Your task to perform on an android device: turn on bluetooth scan Image 0: 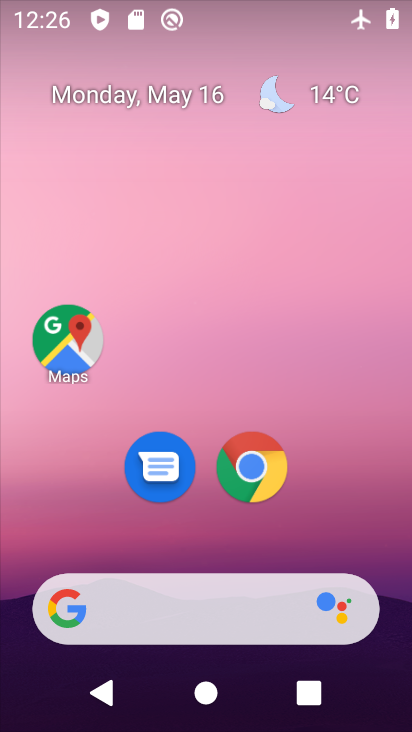
Step 0: drag from (205, 483) to (310, 228)
Your task to perform on an android device: turn on bluetooth scan Image 1: 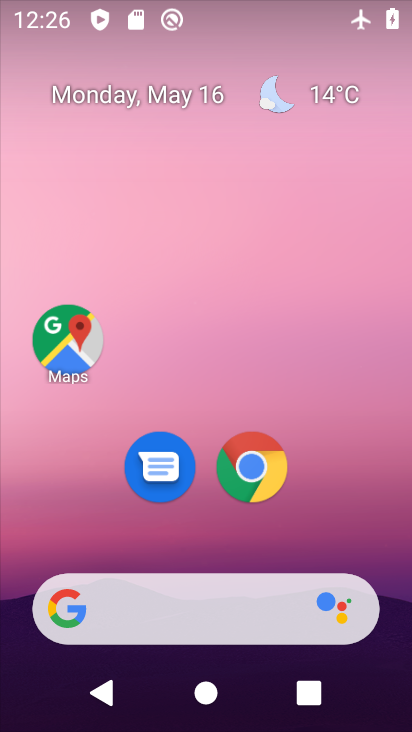
Step 1: drag from (242, 518) to (377, 181)
Your task to perform on an android device: turn on bluetooth scan Image 2: 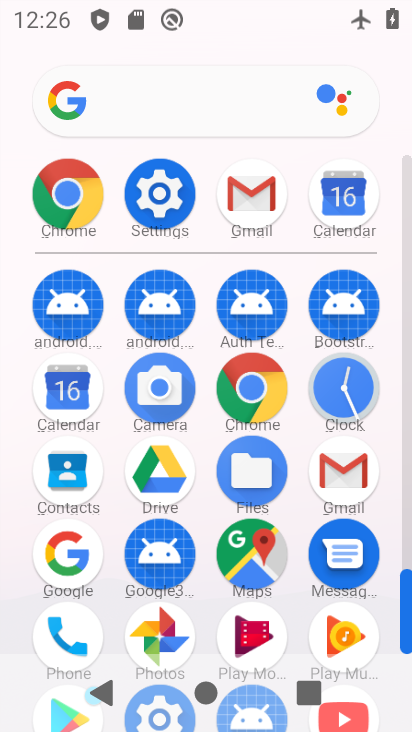
Step 2: click (152, 178)
Your task to perform on an android device: turn on bluetooth scan Image 3: 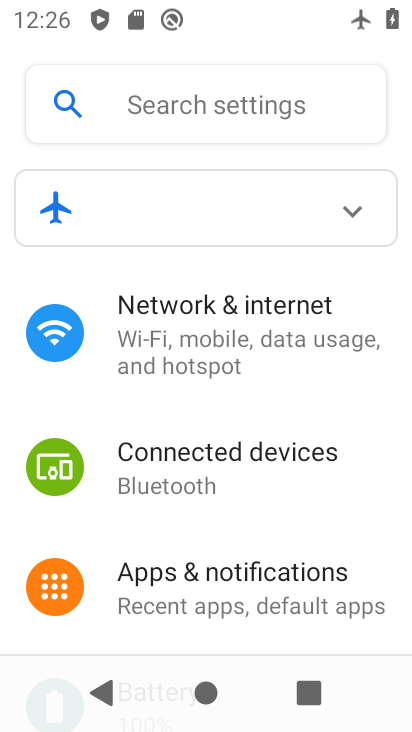
Step 3: drag from (115, 179) to (151, 134)
Your task to perform on an android device: turn on bluetooth scan Image 4: 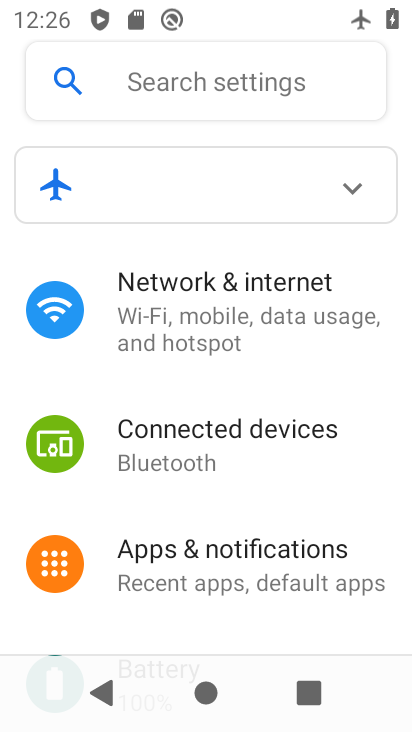
Step 4: click (160, 64)
Your task to perform on an android device: turn on bluetooth scan Image 5: 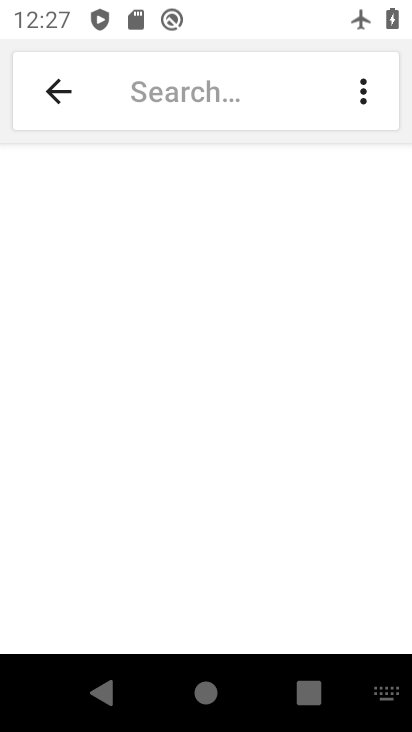
Step 5: click (236, 76)
Your task to perform on an android device: turn on bluetooth scan Image 6: 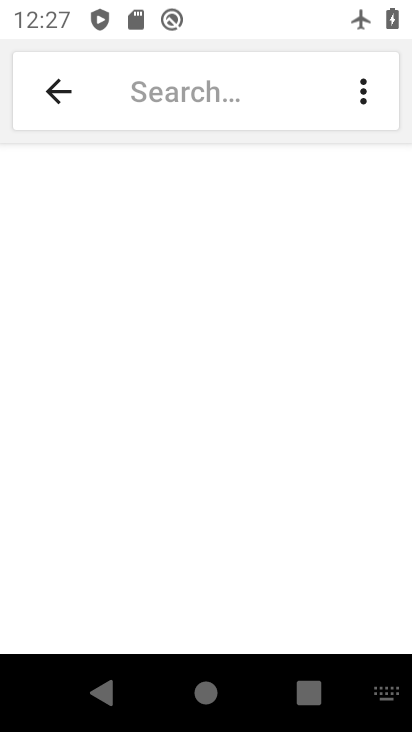
Step 6: type " bluetooth scan"
Your task to perform on an android device: turn on bluetooth scan Image 7: 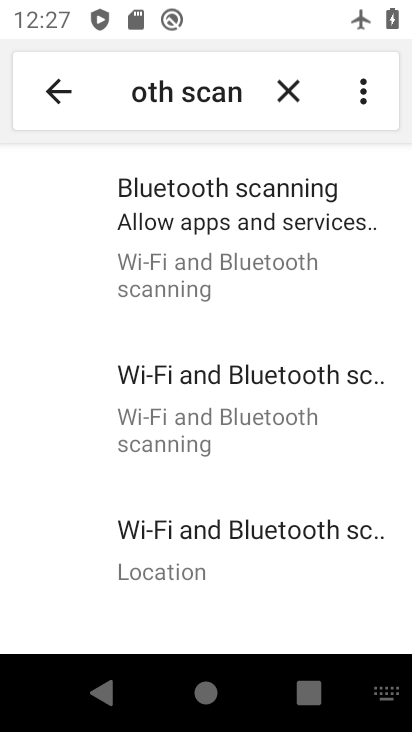
Step 7: click (207, 230)
Your task to perform on an android device: turn on bluetooth scan Image 8: 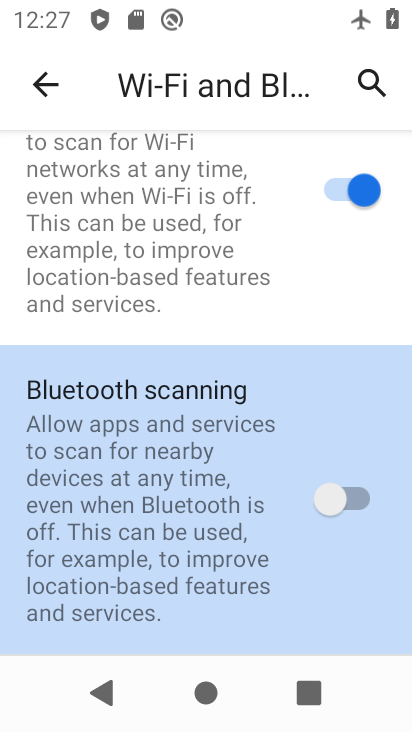
Step 8: click (361, 507)
Your task to perform on an android device: turn on bluetooth scan Image 9: 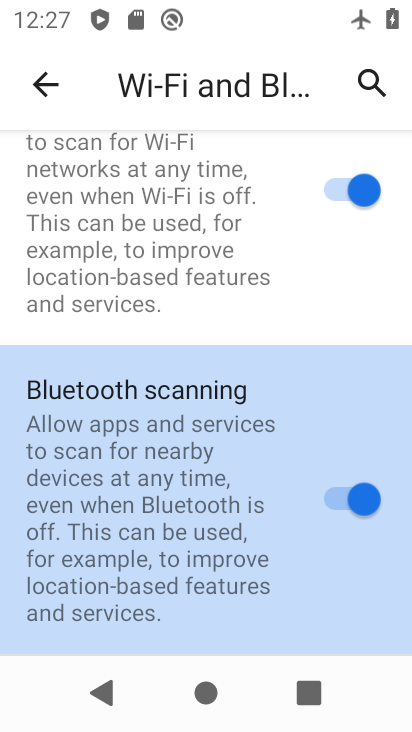
Step 9: task complete